Your task to perform on an android device: open wifi settings Image 0: 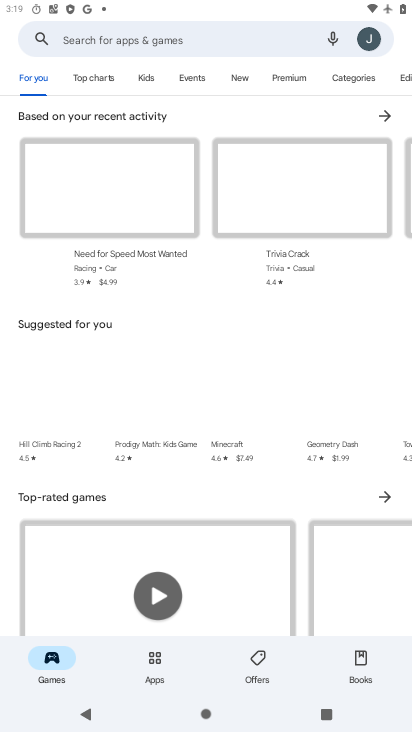
Step 0: press home button
Your task to perform on an android device: open wifi settings Image 1: 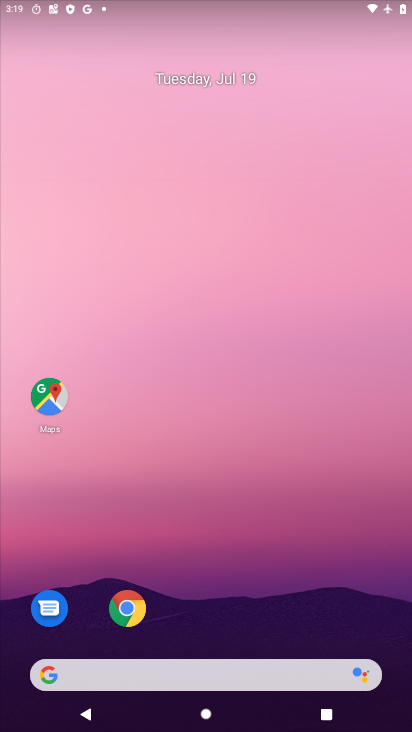
Step 1: drag from (239, 376) to (221, 82)
Your task to perform on an android device: open wifi settings Image 2: 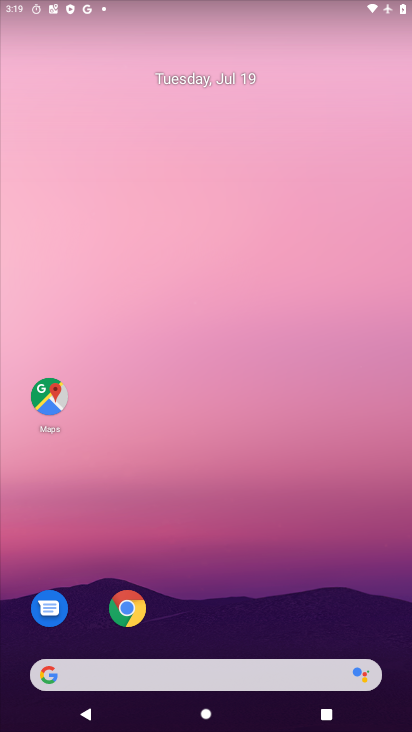
Step 2: drag from (249, 593) to (294, 136)
Your task to perform on an android device: open wifi settings Image 3: 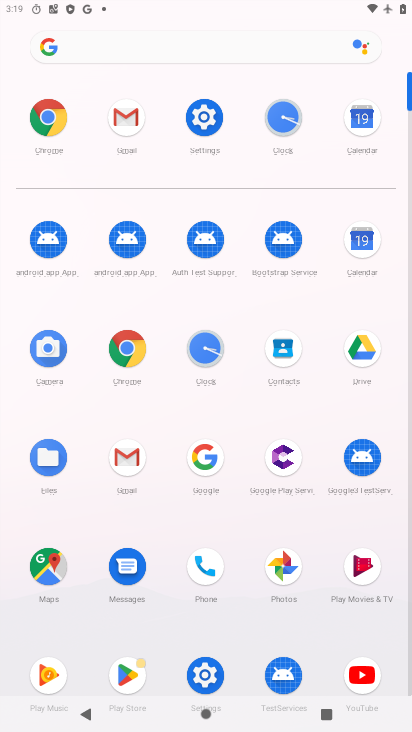
Step 3: click (188, 119)
Your task to perform on an android device: open wifi settings Image 4: 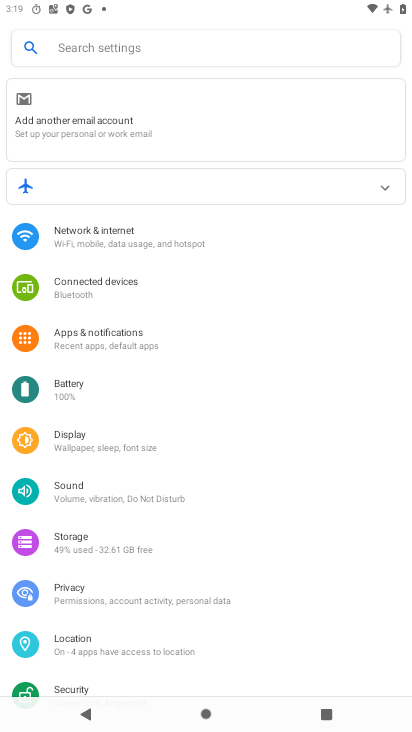
Step 4: click (79, 258)
Your task to perform on an android device: open wifi settings Image 5: 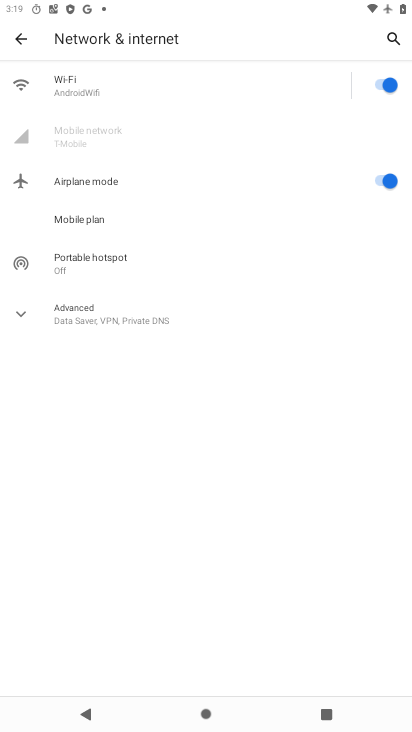
Step 5: click (192, 79)
Your task to perform on an android device: open wifi settings Image 6: 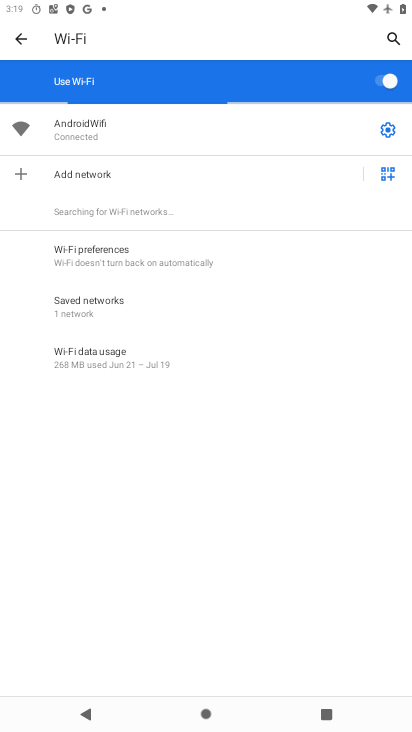
Step 6: click (397, 126)
Your task to perform on an android device: open wifi settings Image 7: 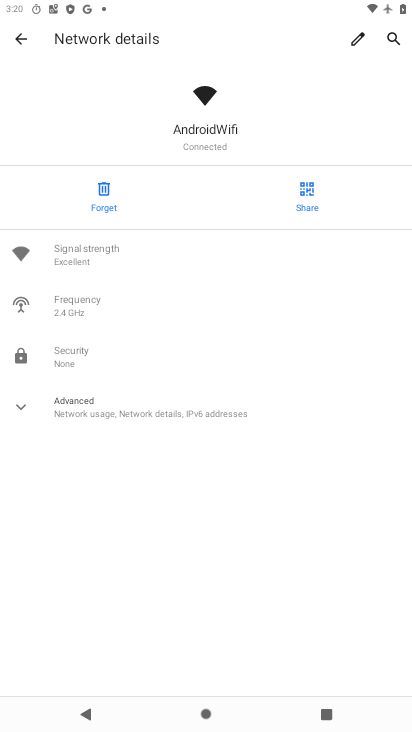
Step 7: task complete